Your task to perform on an android device: turn on wifi Image 0: 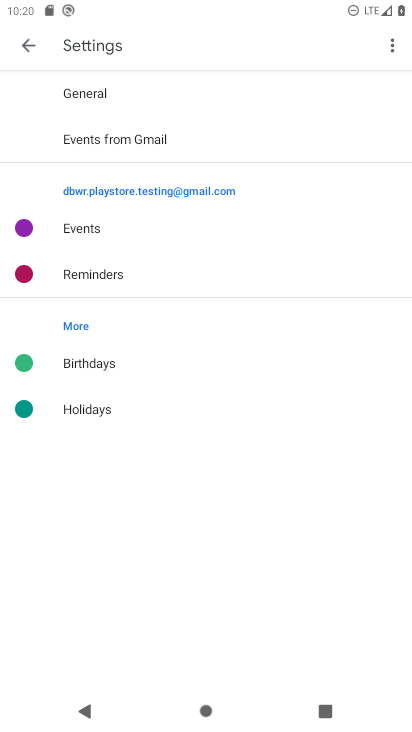
Step 0: press home button
Your task to perform on an android device: turn on wifi Image 1: 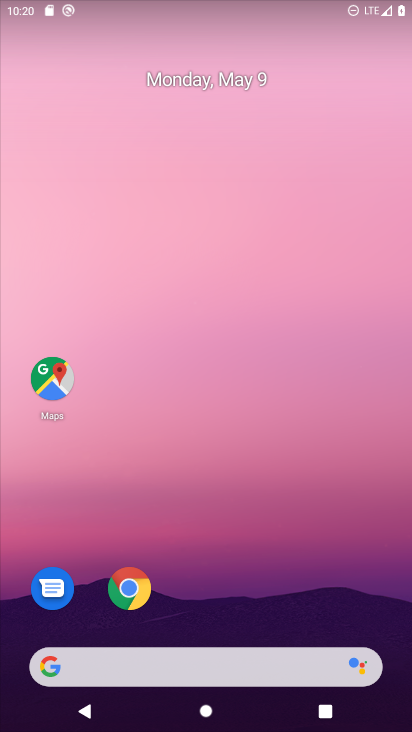
Step 1: drag from (247, 538) to (142, 127)
Your task to perform on an android device: turn on wifi Image 2: 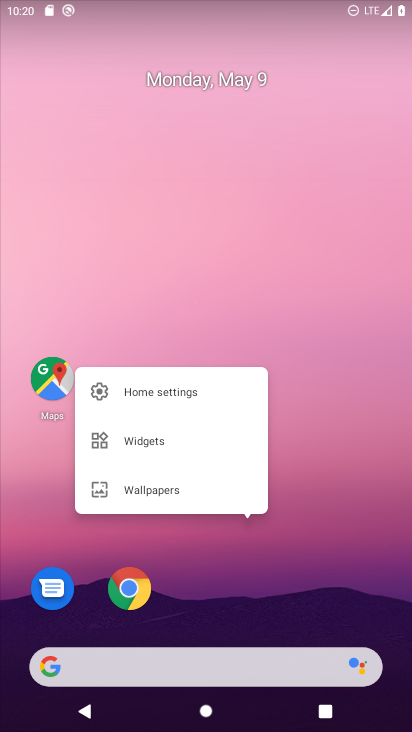
Step 2: click (252, 586)
Your task to perform on an android device: turn on wifi Image 3: 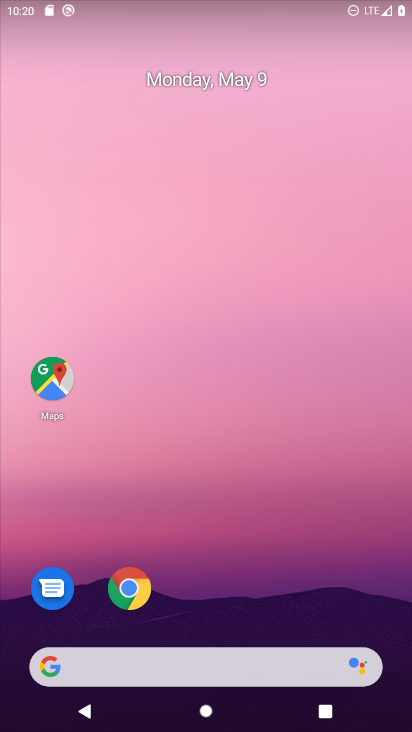
Step 3: click (252, 586)
Your task to perform on an android device: turn on wifi Image 4: 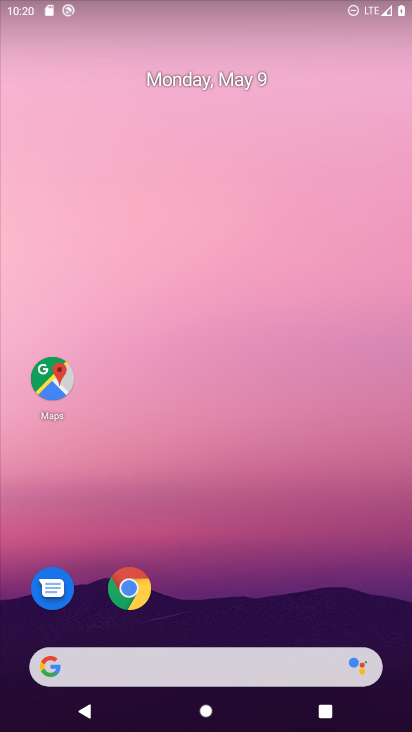
Step 4: click (252, 586)
Your task to perform on an android device: turn on wifi Image 5: 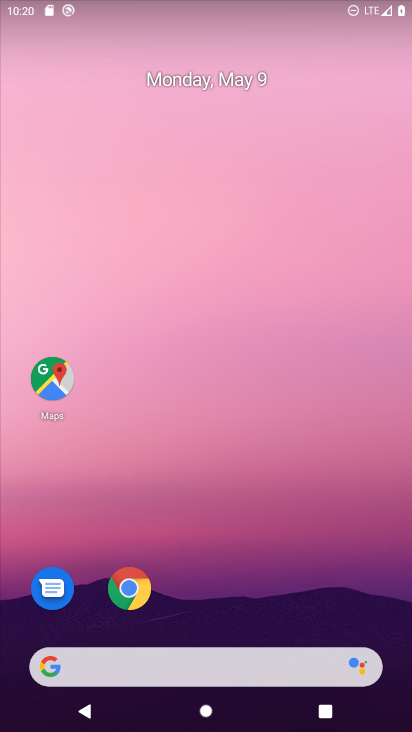
Step 5: drag from (252, 586) to (234, 90)
Your task to perform on an android device: turn on wifi Image 6: 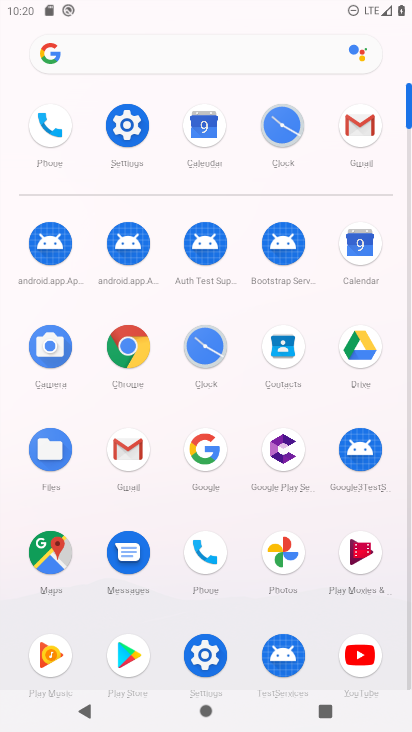
Step 6: click (131, 165)
Your task to perform on an android device: turn on wifi Image 7: 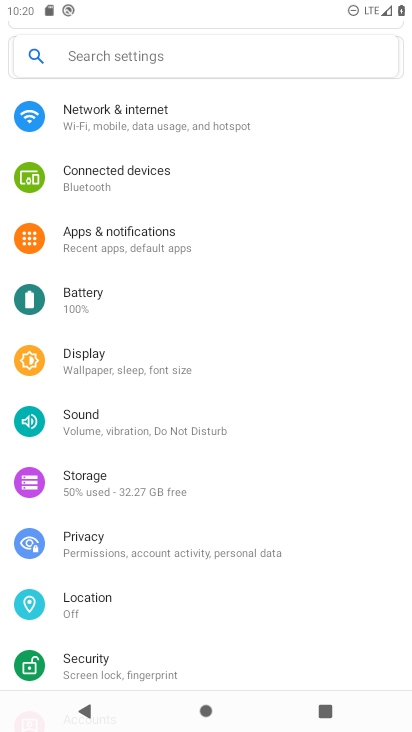
Step 7: click (271, 126)
Your task to perform on an android device: turn on wifi Image 8: 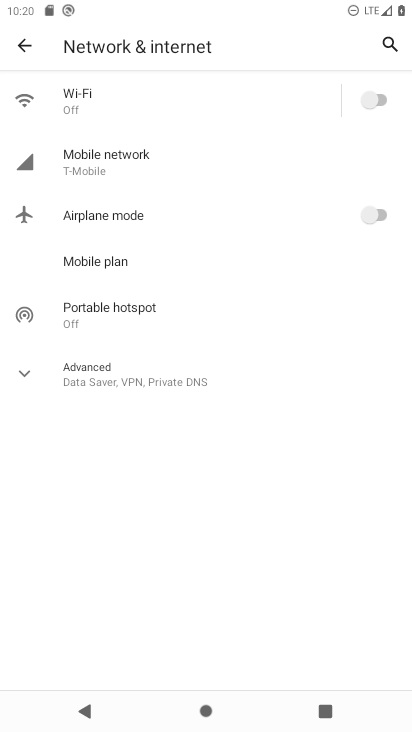
Step 8: click (387, 85)
Your task to perform on an android device: turn on wifi Image 9: 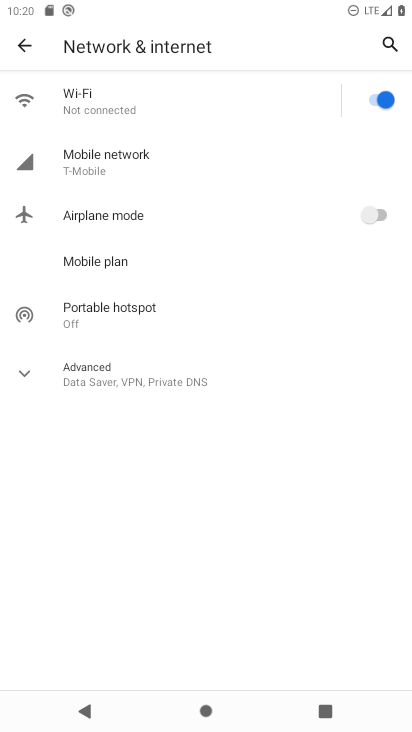
Step 9: task complete